Your task to perform on an android device: change notifications settings Image 0: 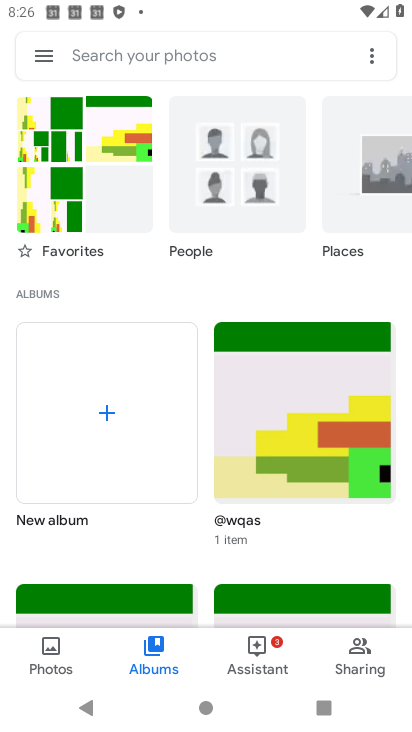
Step 0: press home button
Your task to perform on an android device: change notifications settings Image 1: 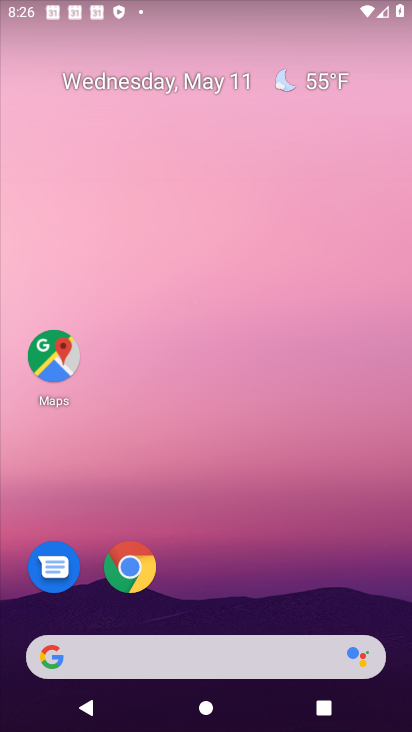
Step 1: drag from (277, 644) to (296, 79)
Your task to perform on an android device: change notifications settings Image 2: 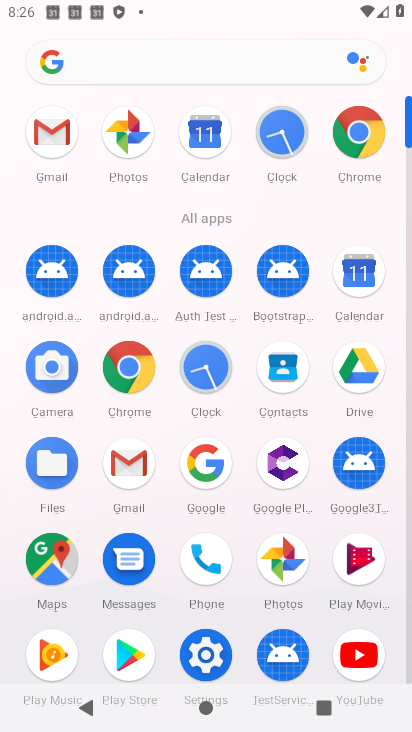
Step 2: click (204, 641)
Your task to perform on an android device: change notifications settings Image 3: 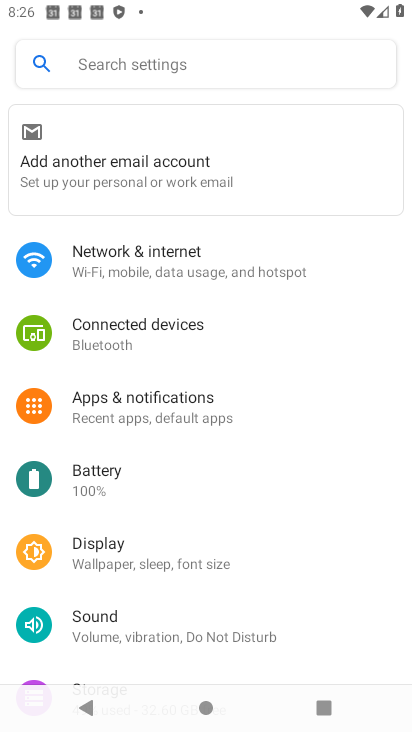
Step 3: click (207, 411)
Your task to perform on an android device: change notifications settings Image 4: 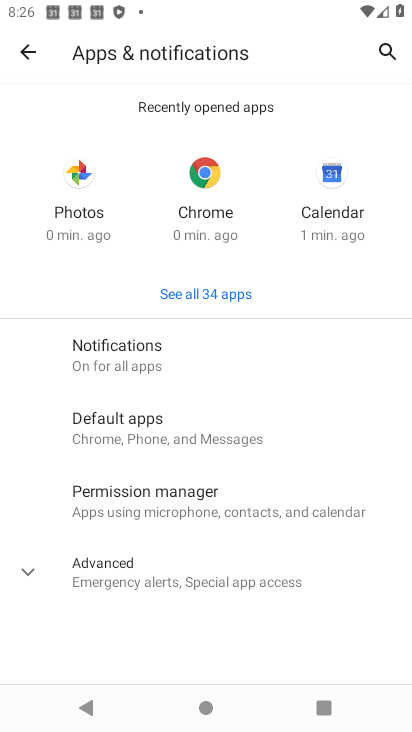
Step 4: click (175, 378)
Your task to perform on an android device: change notifications settings Image 5: 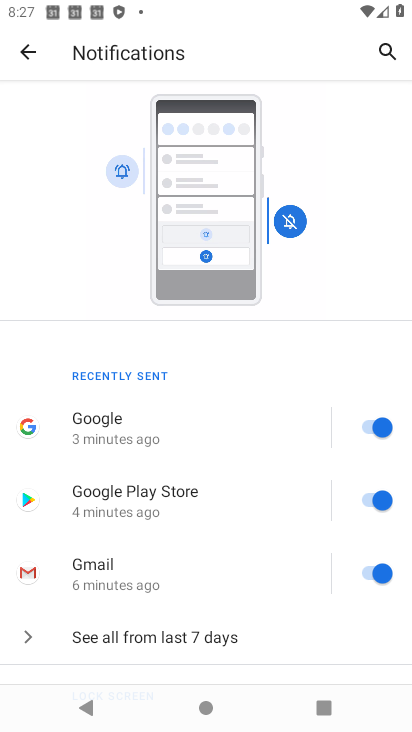
Step 5: click (371, 427)
Your task to perform on an android device: change notifications settings Image 6: 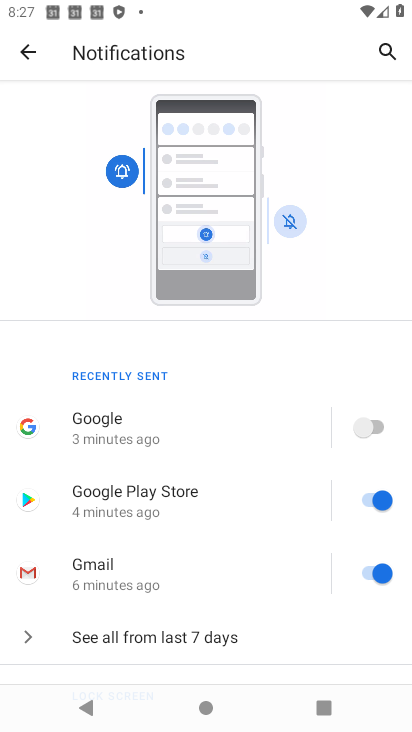
Step 6: click (369, 504)
Your task to perform on an android device: change notifications settings Image 7: 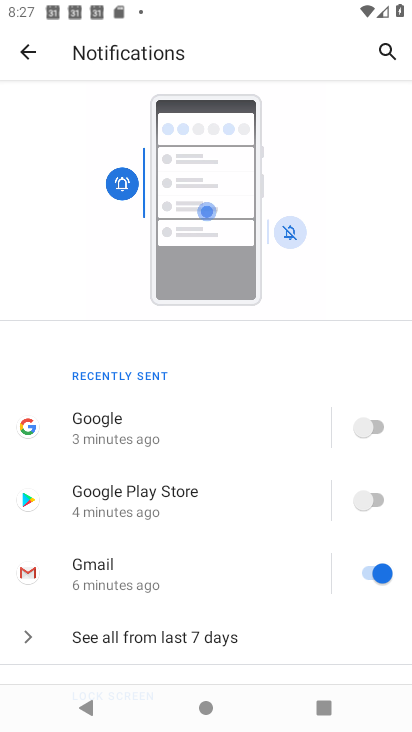
Step 7: task complete